Your task to perform on an android device: find photos in the google photos app Image 0: 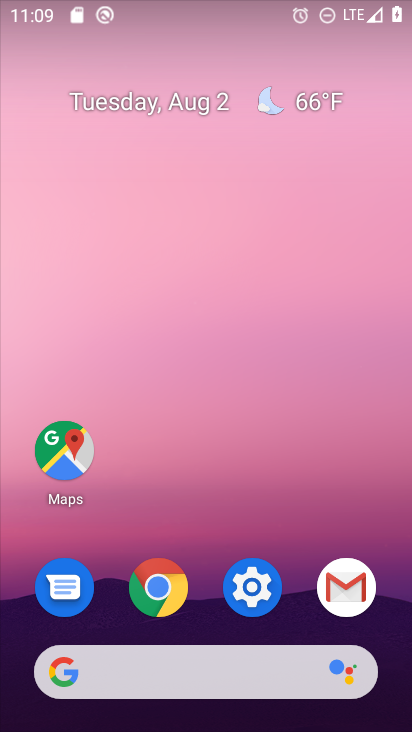
Step 0: drag from (257, 670) to (172, 165)
Your task to perform on an android device: find photos in the google photos app Image 1: 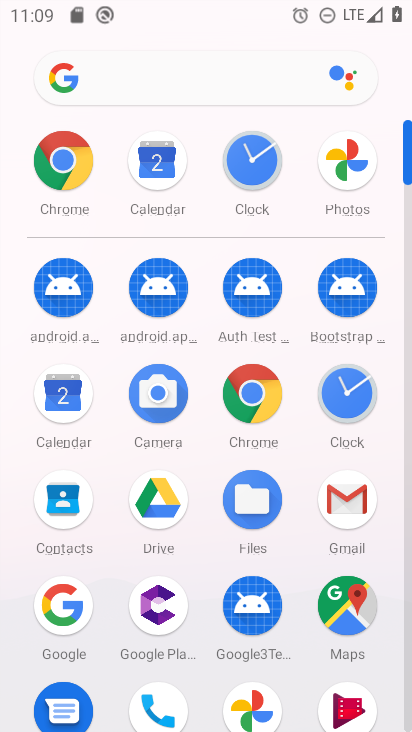
Step 1: click (250, 713)
Your task to perform on an android device: find photos in the google photos app Image 2: 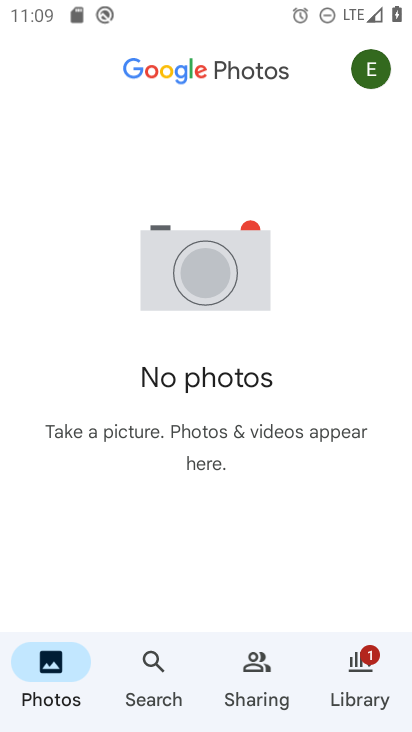
Step 2: task complete